Your task to perform on an android device: Open calendar and show me the first week of next month Image 0: 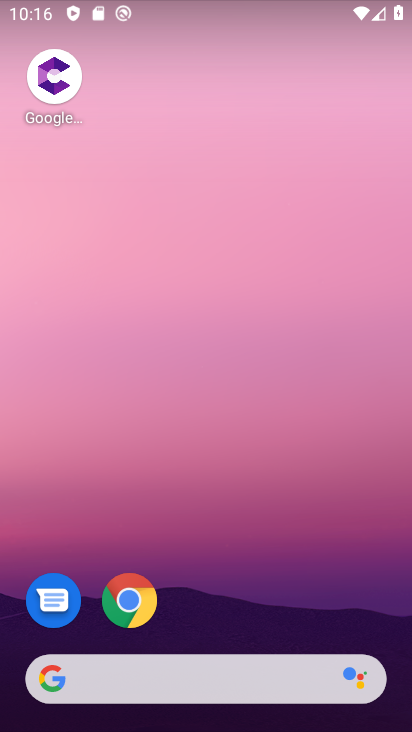
Step 0: drag from (260, 614) to (312, 116)
Your task to perform on an android device: Open calendar and show me the first week of next month Image 1: 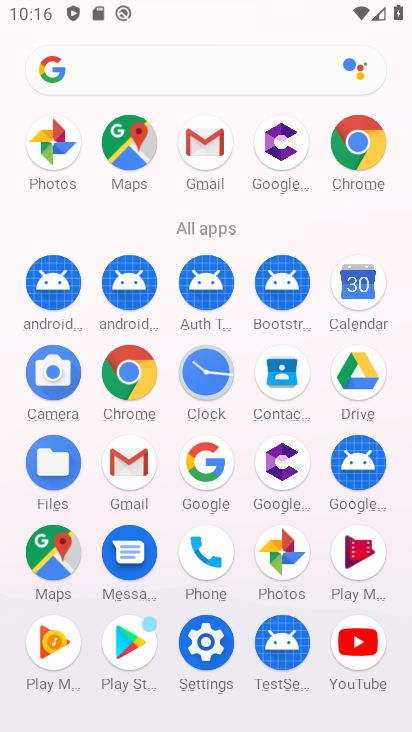
Step 1: click (354, 284)
Your task to perform on an android device: Open calendar and show me the first week of next month Image 2: 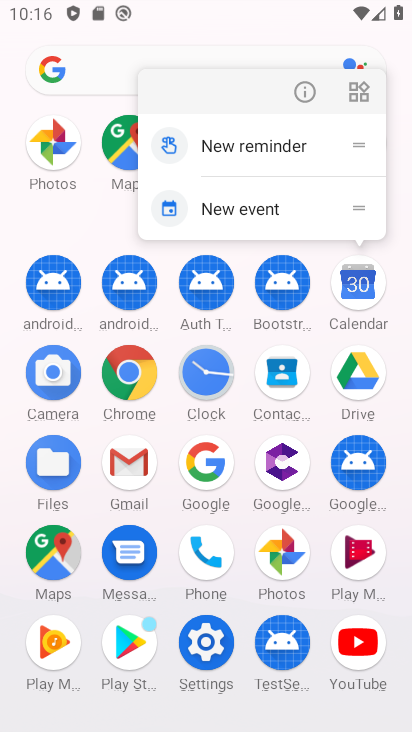
Step 2: click (354, 284)
Your task to perform on an android device: Open calendar and show me the first week of next month Image 3: 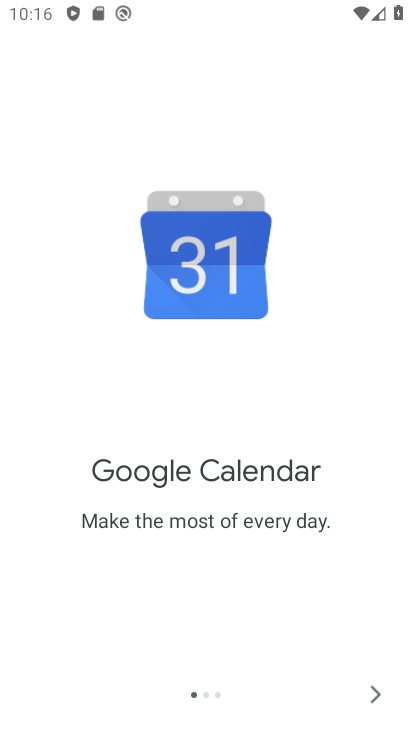
Step 3: click (376, 691)
Your task to perform on an android device: Open calendar and show me the first week of next month Image 4: 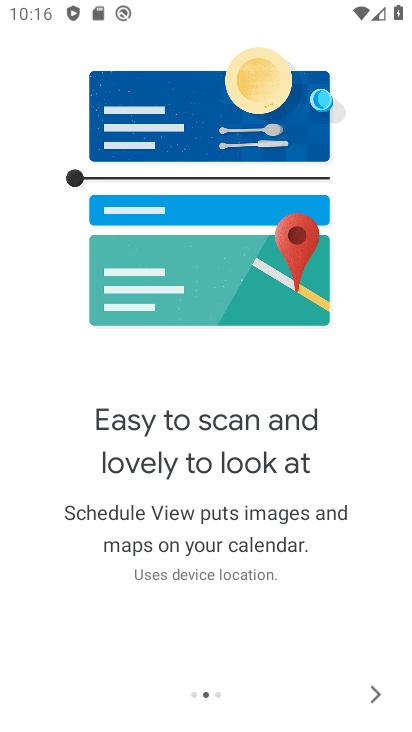
Step 4: click (376, 691)
Your task to perform on an android device: Open calendar and show me the first week of next month Image 5: 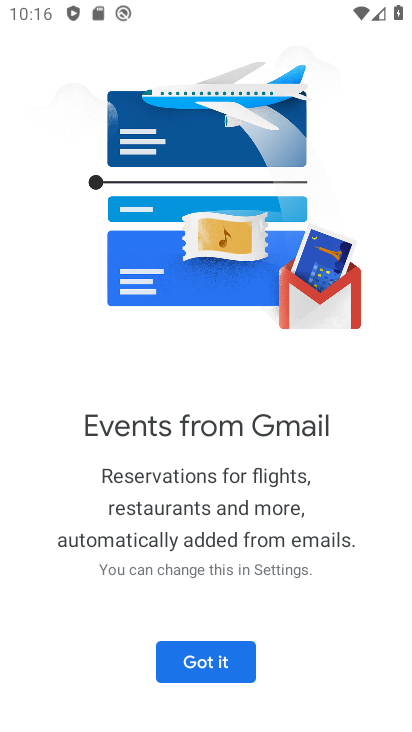
Step 5: click (219, 659)
Your task to perform on an android device: Open calendar and show me the first week of next month Image 6: 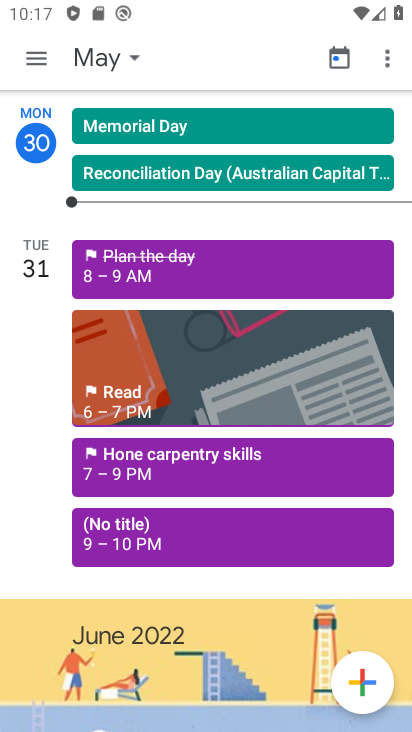
Step 6: click (139, 53)
Your task to perform on an android device: Open calendar and show me the first week of next month Image 7: 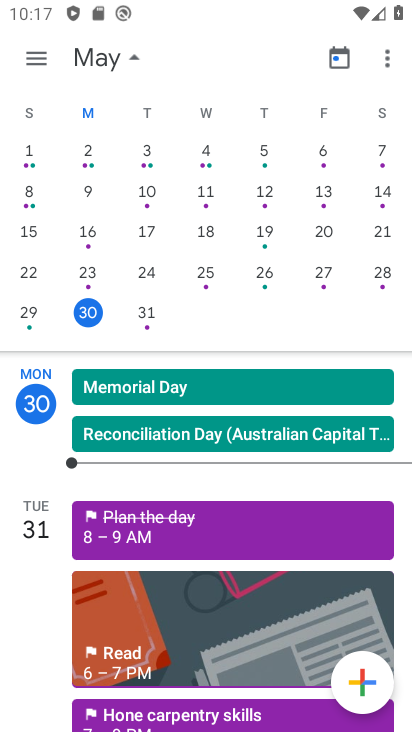
Step 7: drag from (344, 186) to (42, 175)
Your task to perform on an android device: Open calendar and show me the first week of next month Image 8: 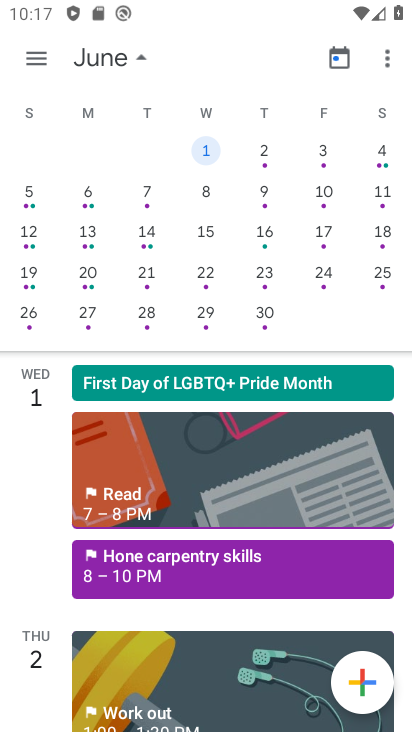
Step 8: click (327, 155)
Your task to perform on an android device: Open calendar and show me the first week of next month Image 9: 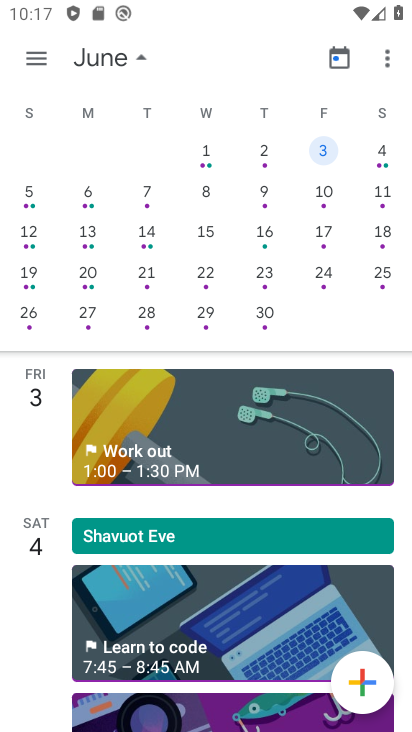
Step 9: task complete